Your task to perform on an android device: toggle wifi Image 0: 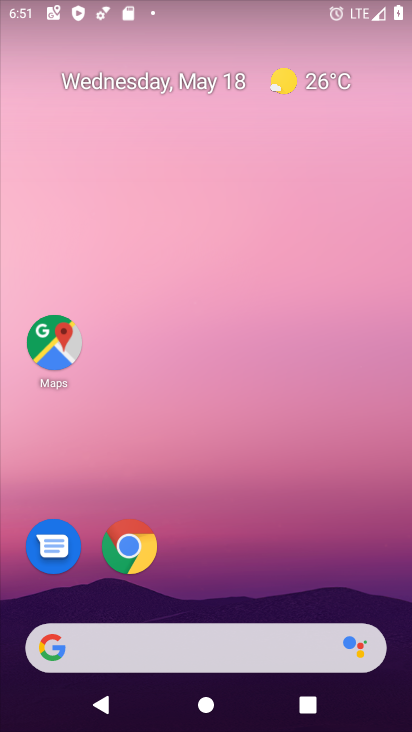
Step 0: drag from (175, 3) to (251, 475)
Your task to perform on an android device: toggle wifi Image 1: 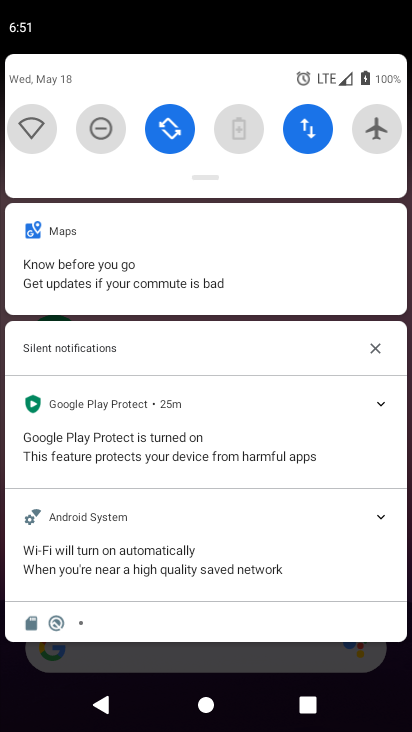
Step 1: click (22, 121)
Your task to perform on an android device: toggle wifi Image 2: 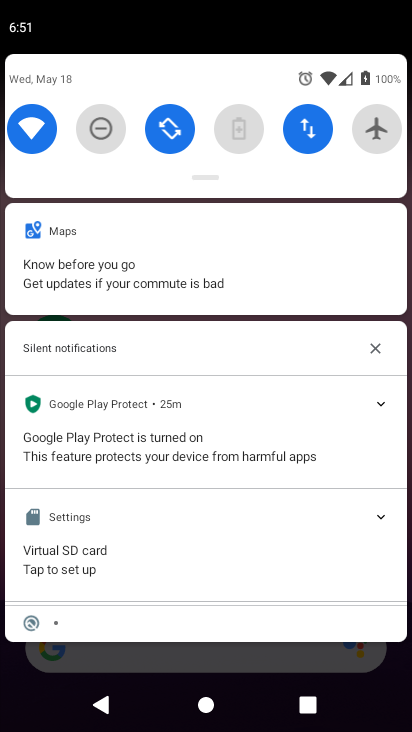
Step 2: task complete